Your task to perform on an android device: turn off sleep mode Image 0: 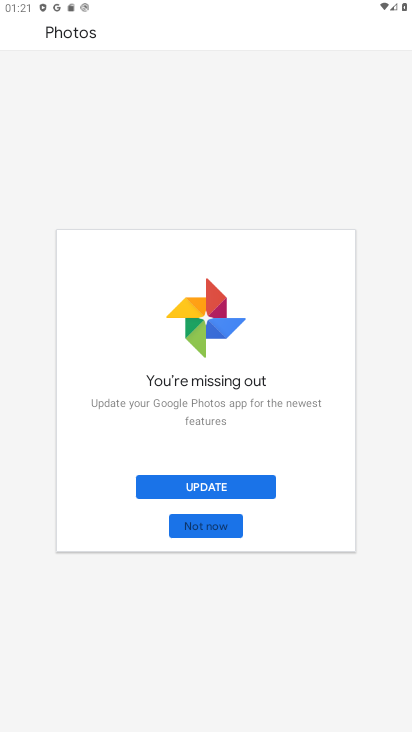
Step 0: drag from (303, 9) to (324, 486)
Your task to perform on an android device: turn off sleep mode Image 1: 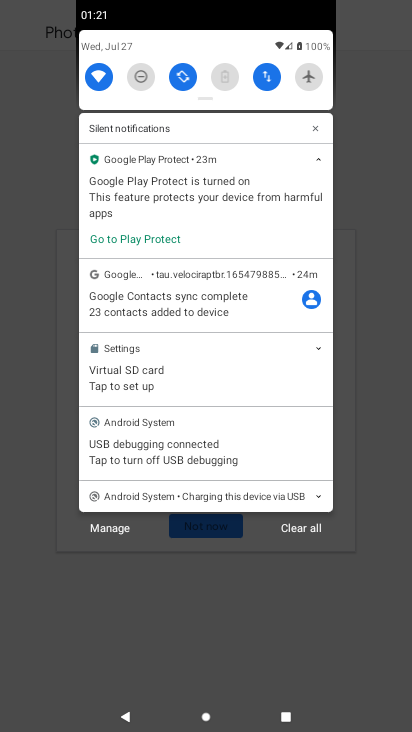
Step 1: drag from (214, 99) to (288, 501)
Your task to perform on an android device: turn off sleep mode Image 2: 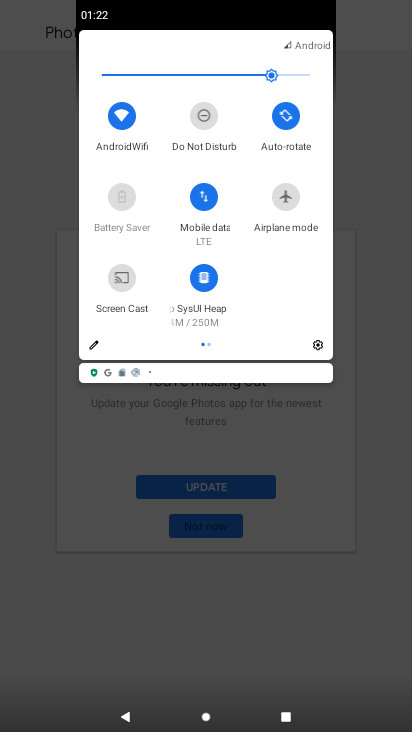
Step 2: click (90, 346)
Your task to perform on an android device: turn off sleep mode Image 3: 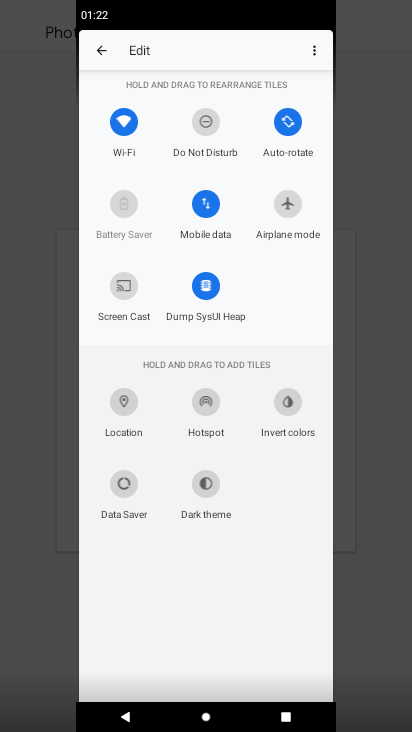
Step 3: task complete